Your task to perform on an android device: Open the calendar app, open the side menu, and click the "Day" option Image 0: 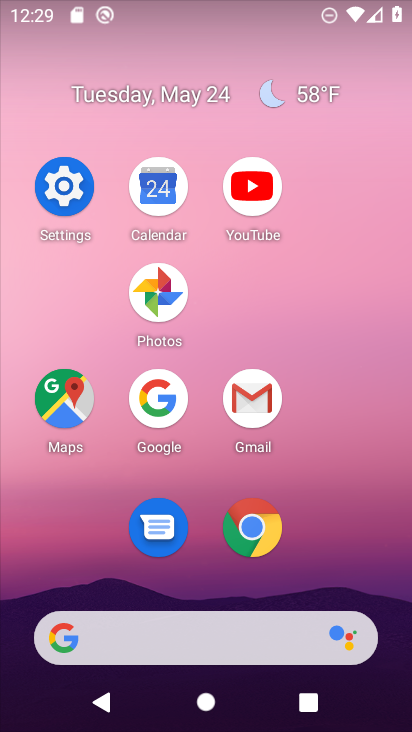
Step 0: click (190, 203)
Your task to perform on an android device: Open the calendar app, open the side menu, and click the "Day" option Image 1: 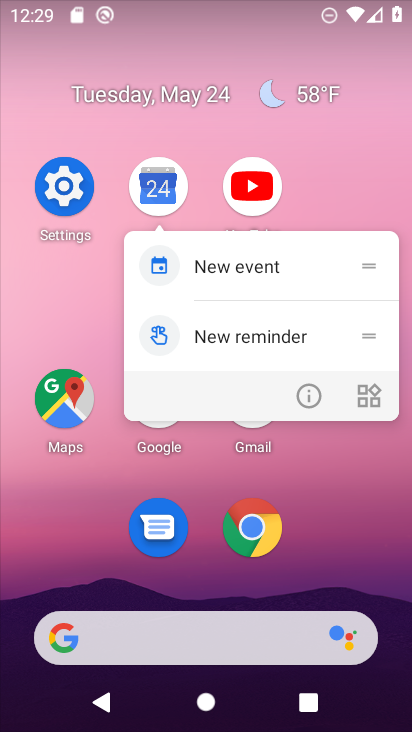
Step 1: click (156, 190)
Your task to perform on an android device: Open the calendar app, open the side menu, and click the "Day" option Image 2: 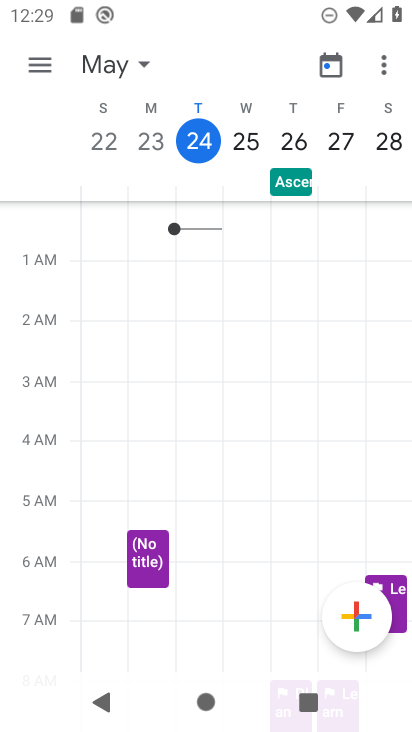
Step 2: click (30, 77)
Your task to perform on an android device: Open the calendar app, open the side menu, and click the "Day" option Image 3: 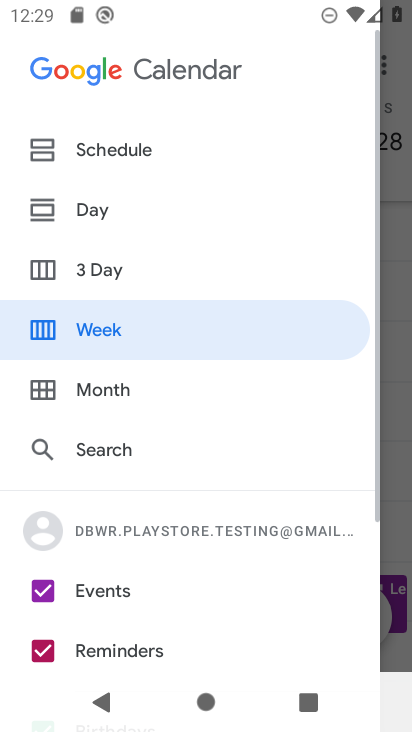
Step 3: click (138, 226)
Your task to perform on an android device: Open the calendar app, open the side menu, and click the "Day" option Image 4: 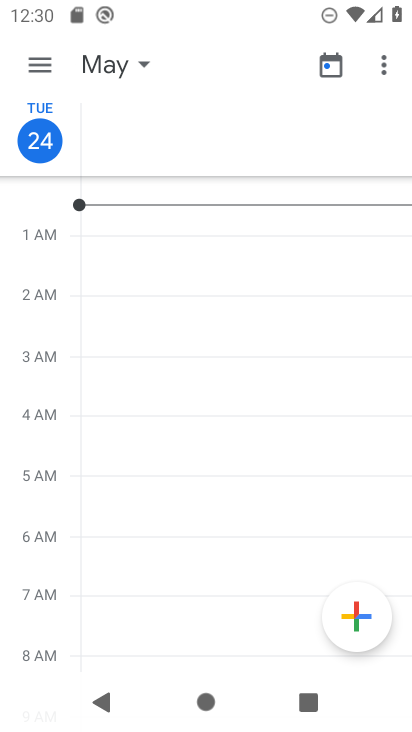
Step 4: task complete